Your task to perform on an android device: delete a single message in the gmail app Image 0: 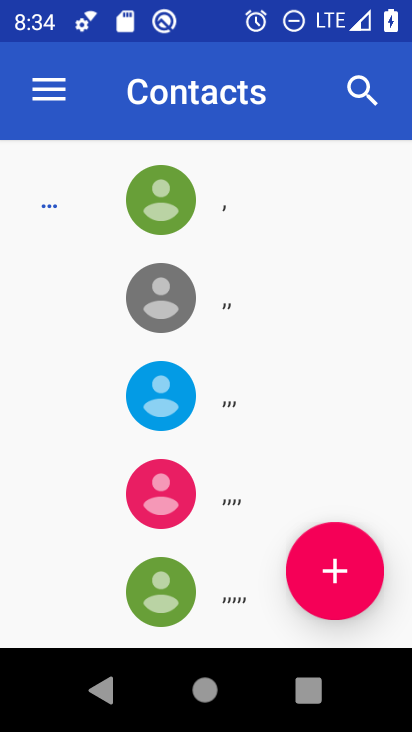
Step 0: press home button
Your task to perform on an android device: delete a single message in the gmail app Image 1: 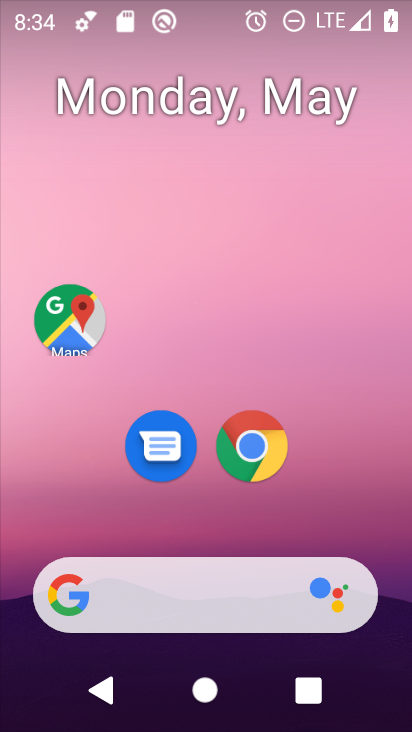
Step 1: drag from (318, 494) to (233, 128)
Your task to perform on an android device: delete a single message in the gmail app Image 2: 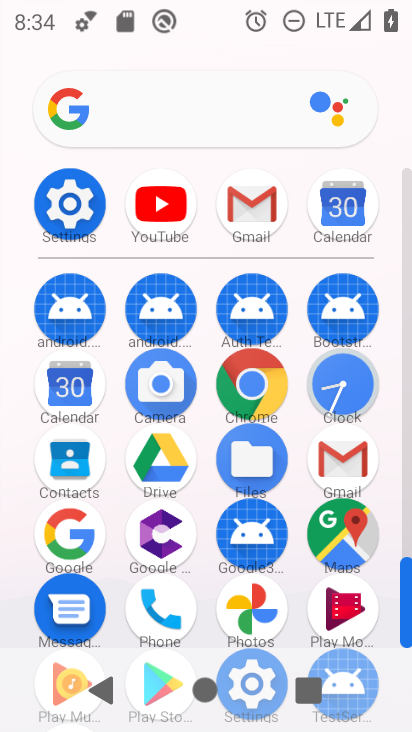
Step 2: click (259, 194)
Your task to perform on an android device: delete a single message in the gmail app Image 3: 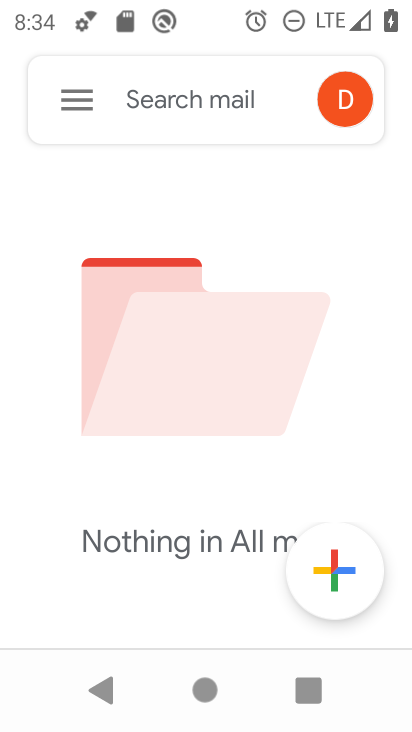
Step 3: click (67, 91)
Your task to perform on an android device: delete a single message in the gmail app Image 4: 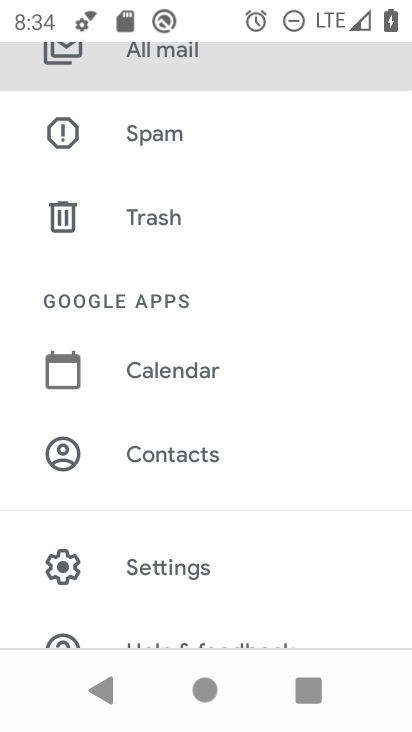
Step 4: click (159, 56)
Your task to perform on an android device: delete a single message in the gmail app Image 5: 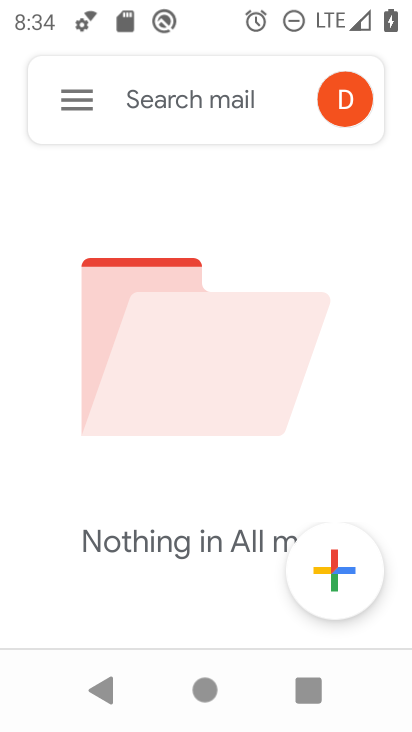
Step 5: task complete